Your task to perform on an android device: change the clock style Image 0: 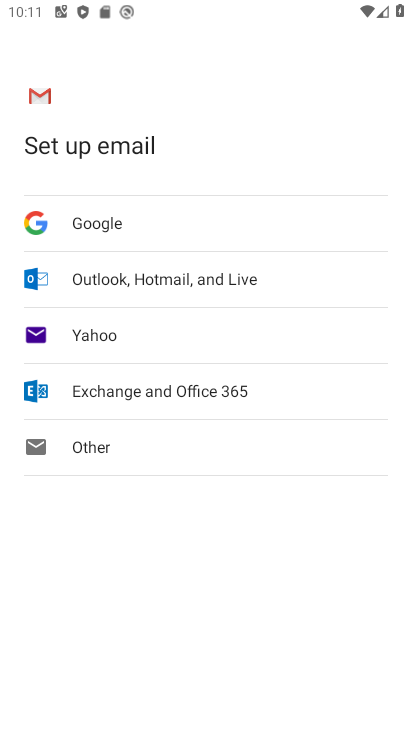
Step 0: press home button
Your task to perform on an android device: change the clock style Image 1: 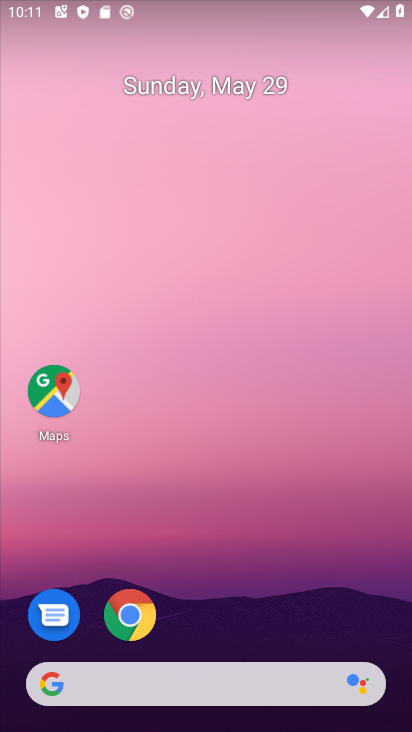
Step 1: drag from (194, 652) to (197, 11)
Your task to perform on an android device: change the clock style Image 2: 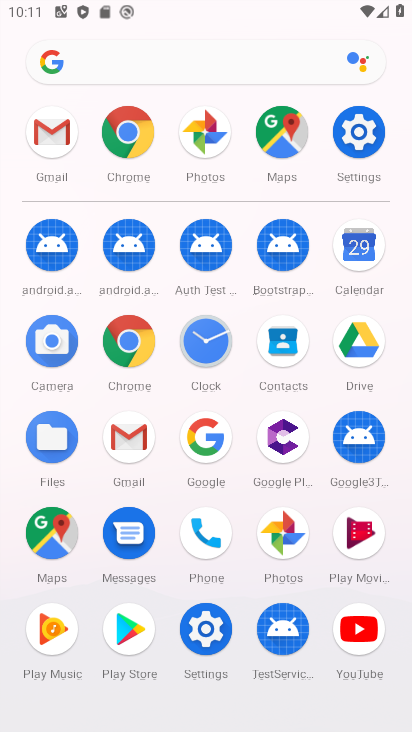
Step 2: click (196, 345)
Your task to perform on an android device: change the clock style Image 3: 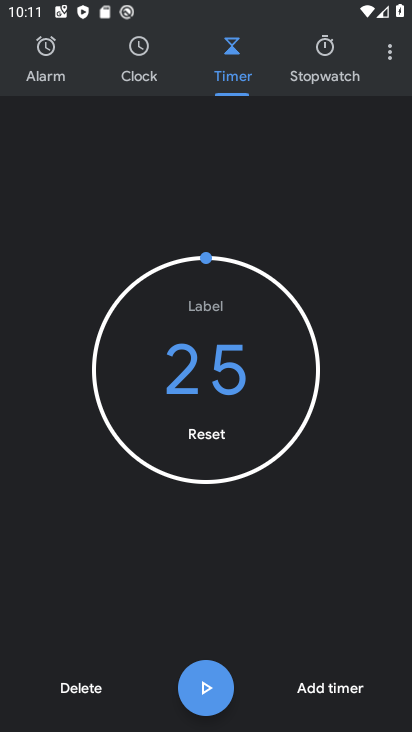
Step 3: click (392, 49)
Your task to perform on an android device: change the clock style Image 4: 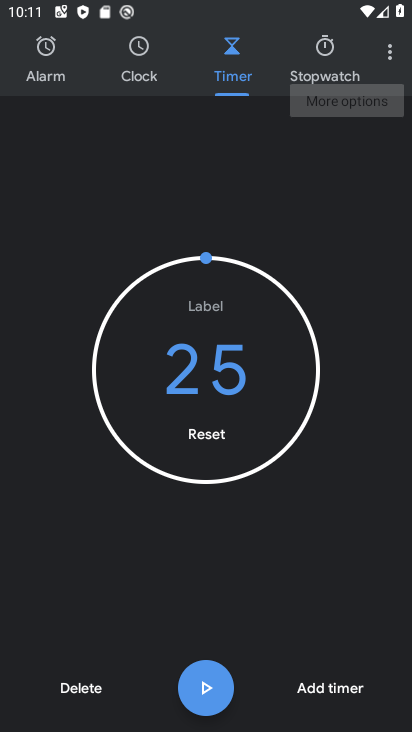
Step 4: click (391, 60)
Your task to perform on an android device: change the clock style Image 5: 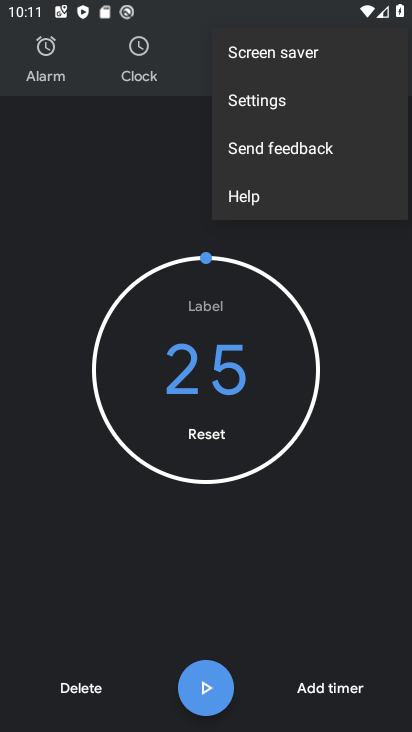
Step 5: click (277, 98)
Your task to perform on an android device: change the clock style Image 6: 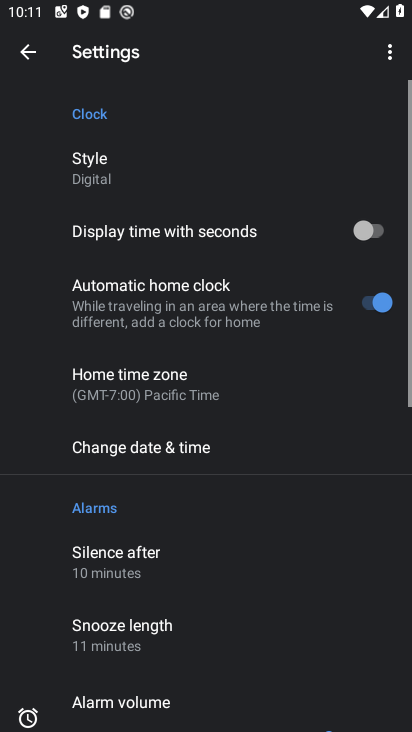
Step 6: click (85, 171)
Your task to perform on an android device: change the clock style Image 7: 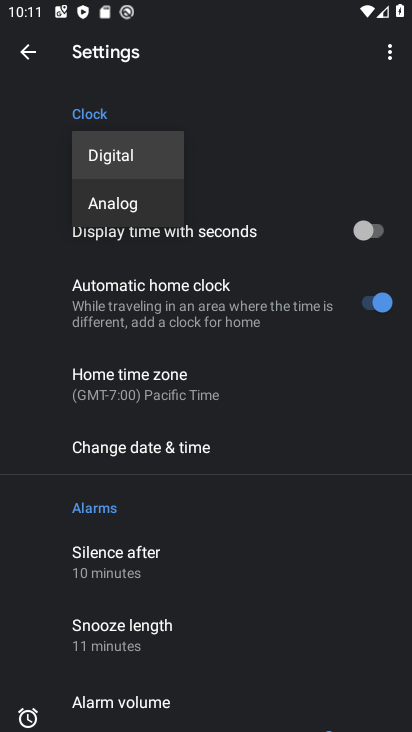
Step 7: click (110, 198)
Your task to perform on an android device: change the clock style Image 8: 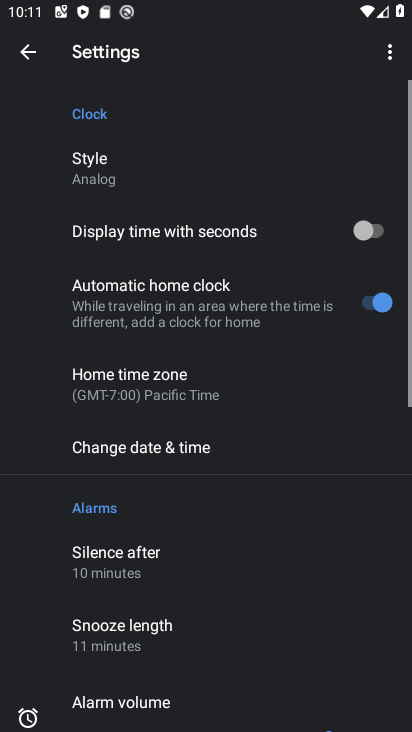
Step 8: task complete